Your task to perform on an android device: open a bookmark in the chrome app Image 0: 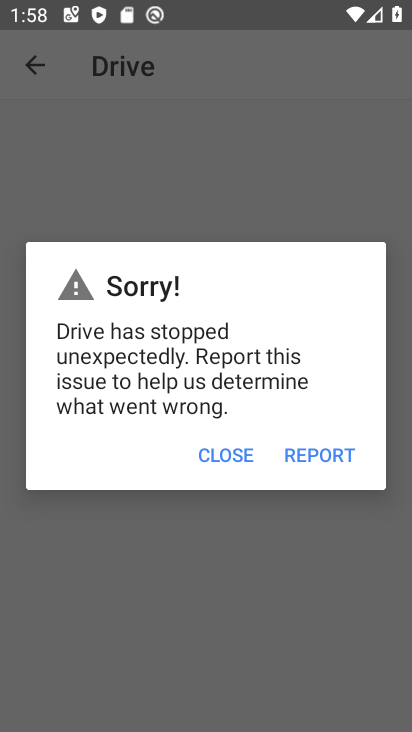
Step 0: press home button
Your task to perform on an android device: open a bookmark in the chrome app Image 1: 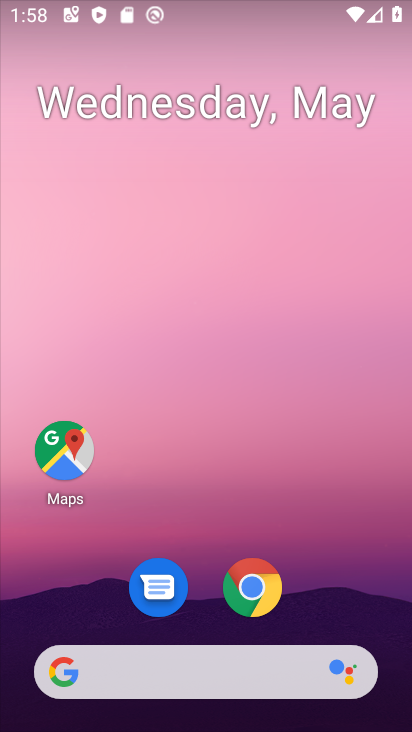
Step 1: click (253, 589)
Your task to perform on an android device: open a bookmark in the chrome app Image 2: 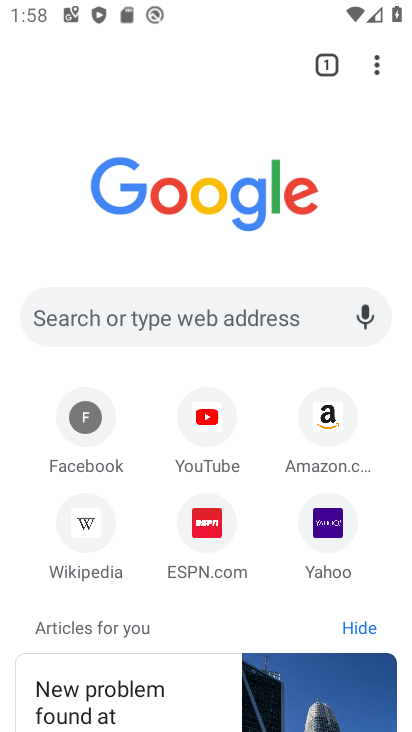
Step 2: task complete